Your task to perform on an android device: Search for pizza restaurants on Maps Image 0: 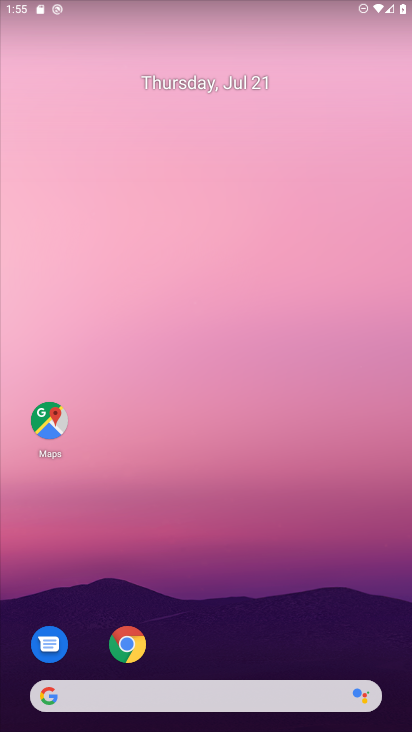
Step 0: drag from (227, 585) to (221, 101)
Your task to perform on an android device: Search for pizza restaurants on Maps Image 1: 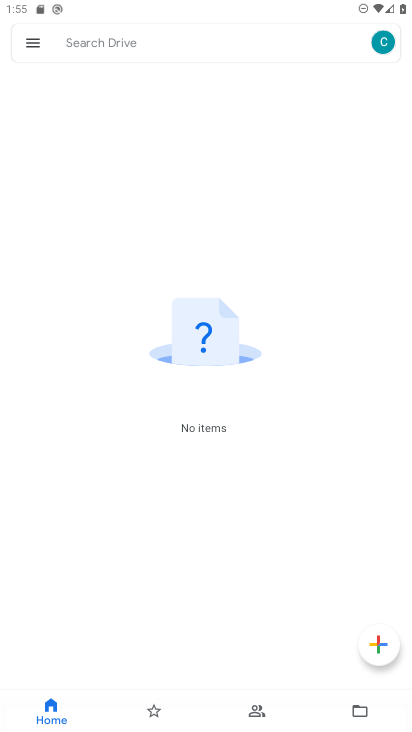
Step 1: press home button
Your task to perform on an android device: Search for pizza restaurants on Maps Image 2: 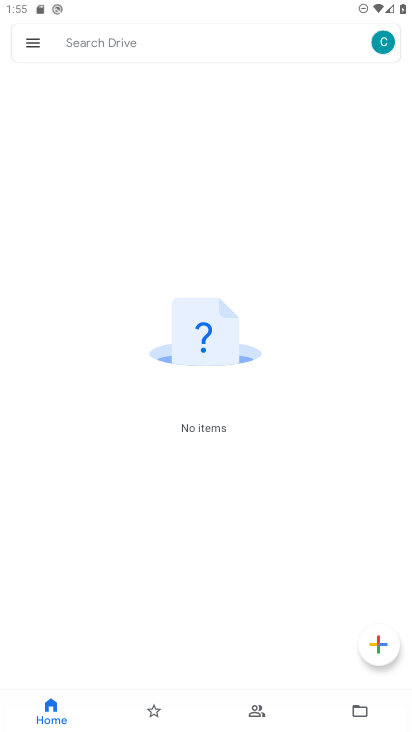
Step 2: click (381, 377)
Your task to perform on an android device: Search for pizza restaurants on Maps Image 3: 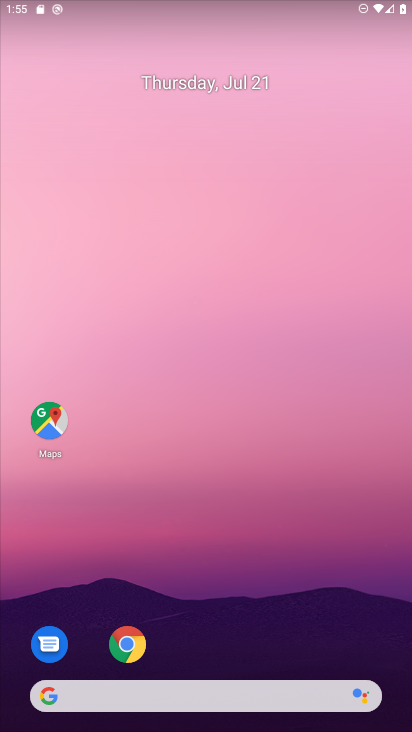
Step 3: click (54, 412)
Your task to perform on an android device: Search for pizza restaurants on Maps Image 4: 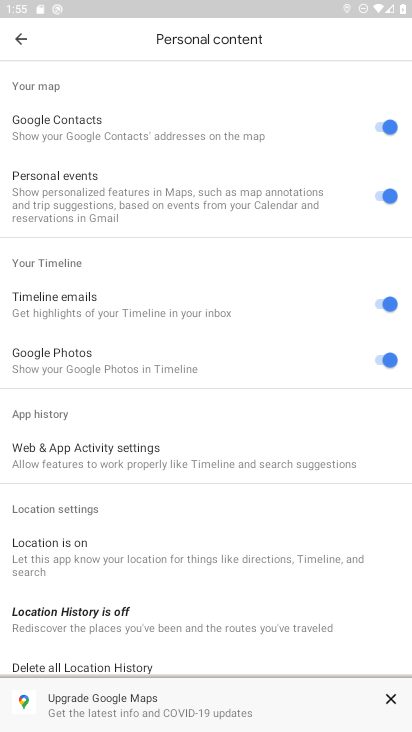
Step 4: click (27, 37)
Your task to perform on an android device: Search for pizza restaurants on Maps Image 5: 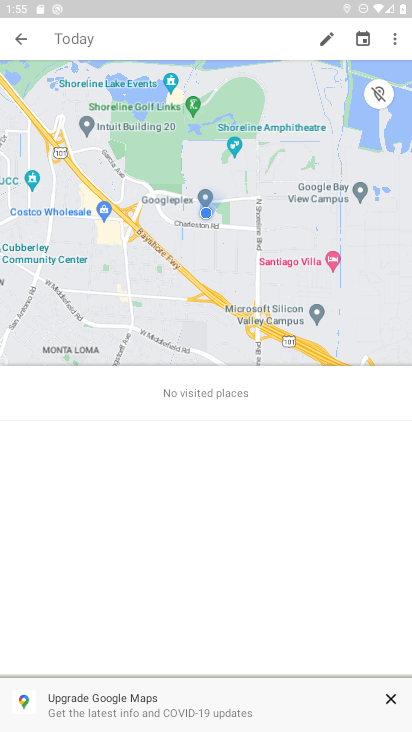
Step 5: click (27, 37)
Your task to perform on an android device: Search for pizza restaurants on Maps Image 6: 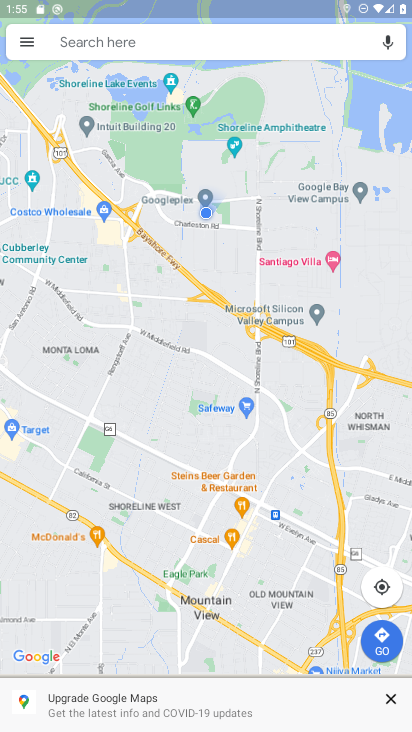
Step 6: click (156, 38)
Your task to perform on an android device: Search for pizza restaurants on Maps Image 7: 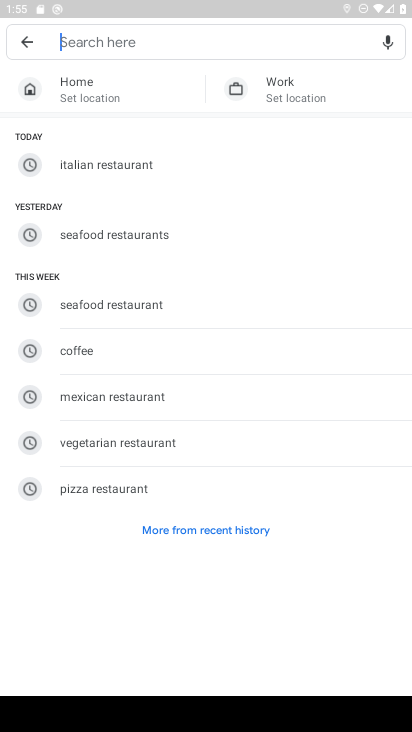
Step 7: type "pizza restaurants"
Your task to perform on an android device: Search for pizza restaurants on Maps Image 8: 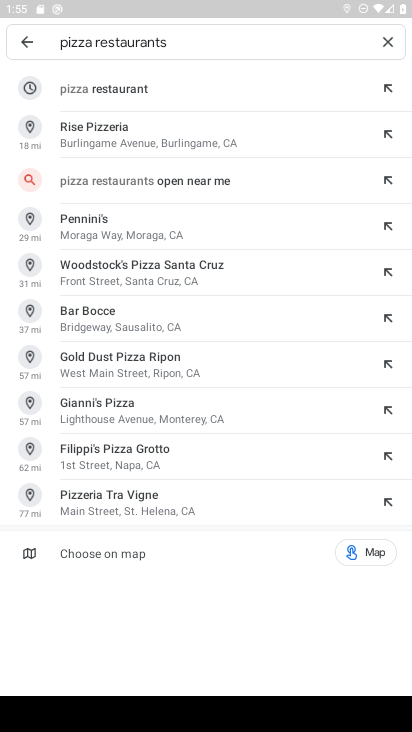
Step 8: click (330, 83)
Your task to perform on an android device: Search for pizza restaurants on Maps Image 9: 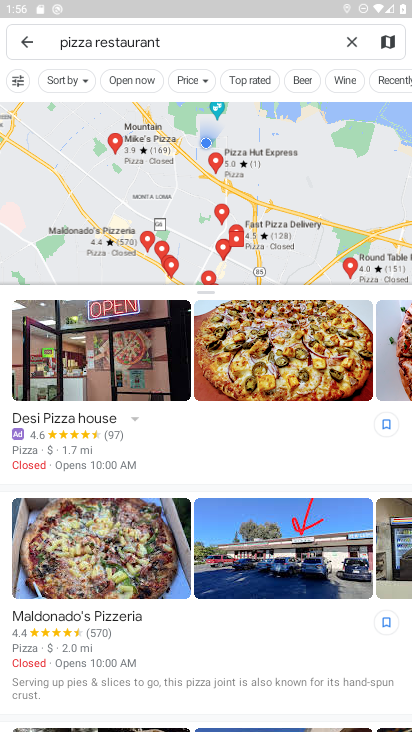
Step 9: task complete